Your task to perform on an android device: Open Amazon Image 0: 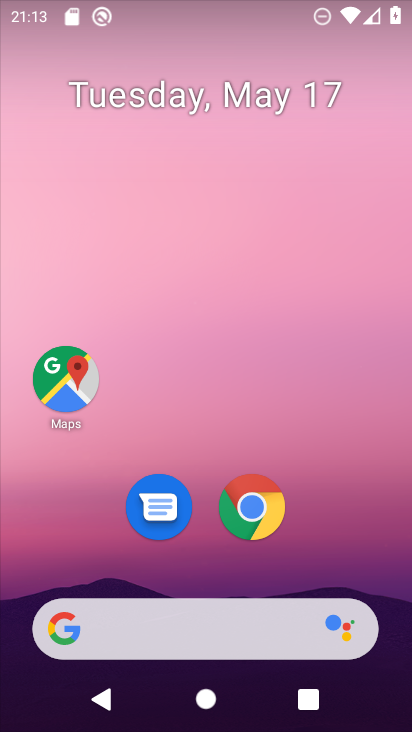
Step 0: click (242, 516)
Your task to perform on an android device: Open Amazon Image 1: 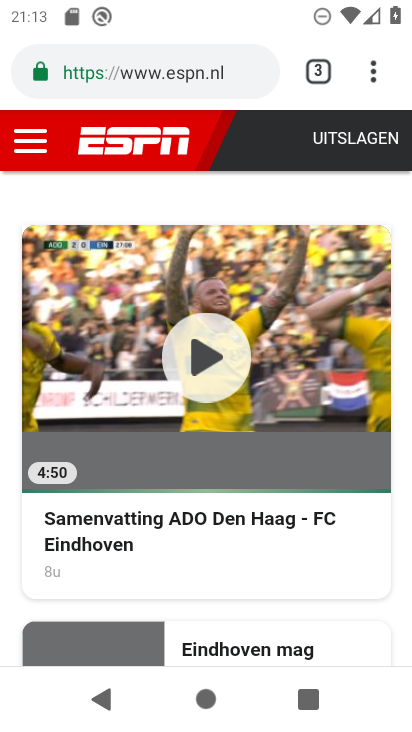
Step 1: click (152, 66)
Your task to perform on an android device: Open Amazon Image 2: 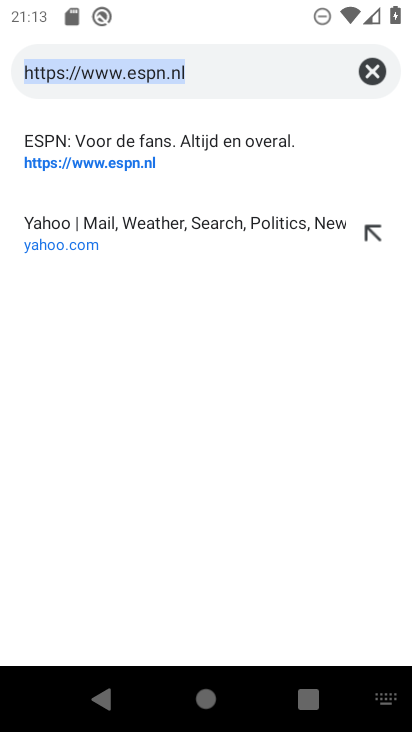
Step 2: type "amazon"
Your task to perform on an android device: Open Amazon Image 3: 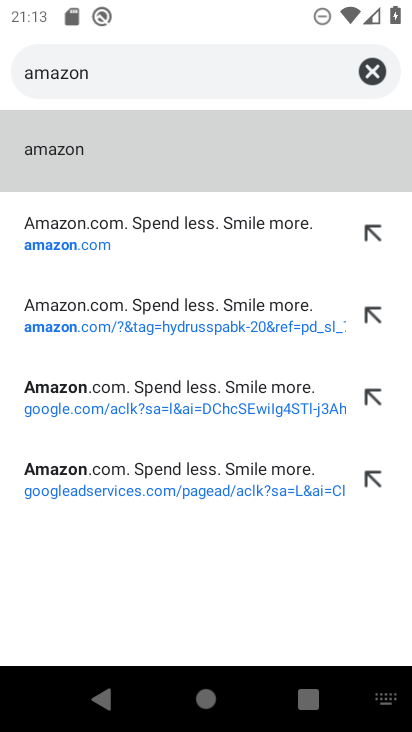
Step 3: click (90, 239)
Your task to perform on an android device: Open Amazon Image 4: 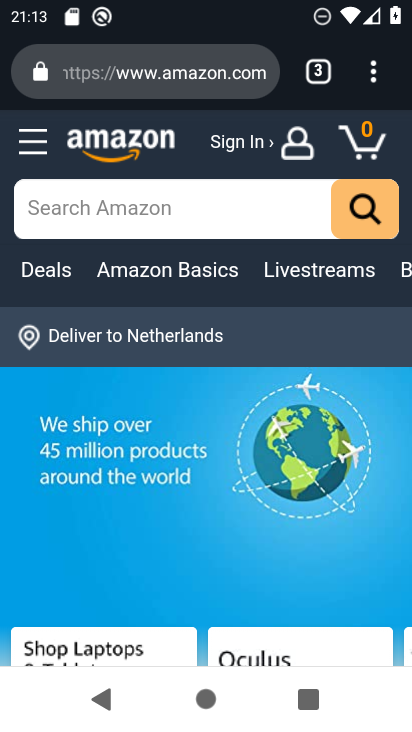
Step 4: task complete